Your task to perform on an android device: move an email to a new category in the gmail app Image 0: 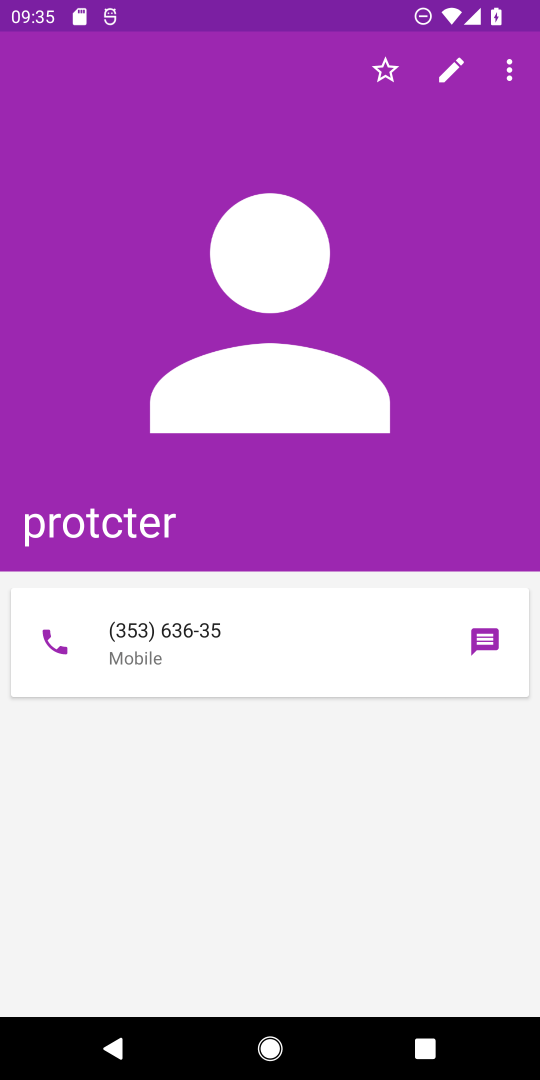
Step 0: press home button
Your task to perform on an android device: move an email to a new category in the gmail app Image 1: 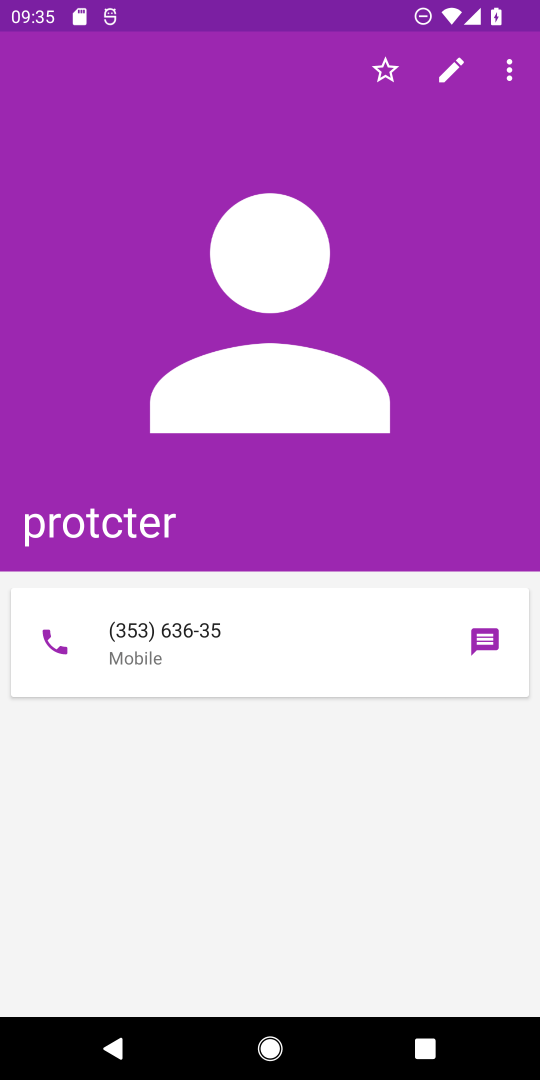
Step 1: press home button
Your task to perform on an android device: move an email to a new category in the gmail app Image 2: 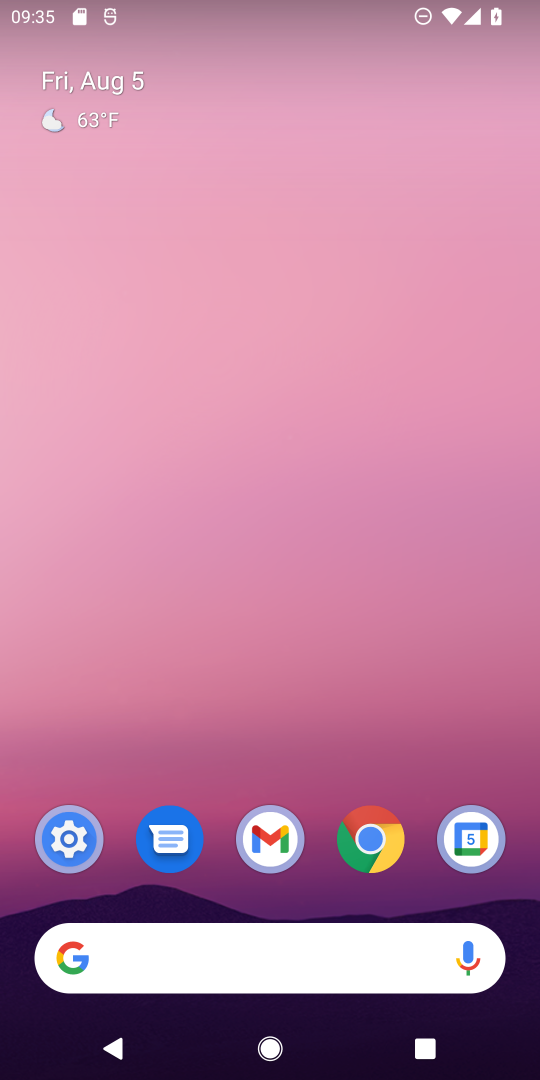
Step 2: drag from (323, 578) to (323, 0)
Your task to perform on an android device: move an email to a new category in the gmail app Image 3: 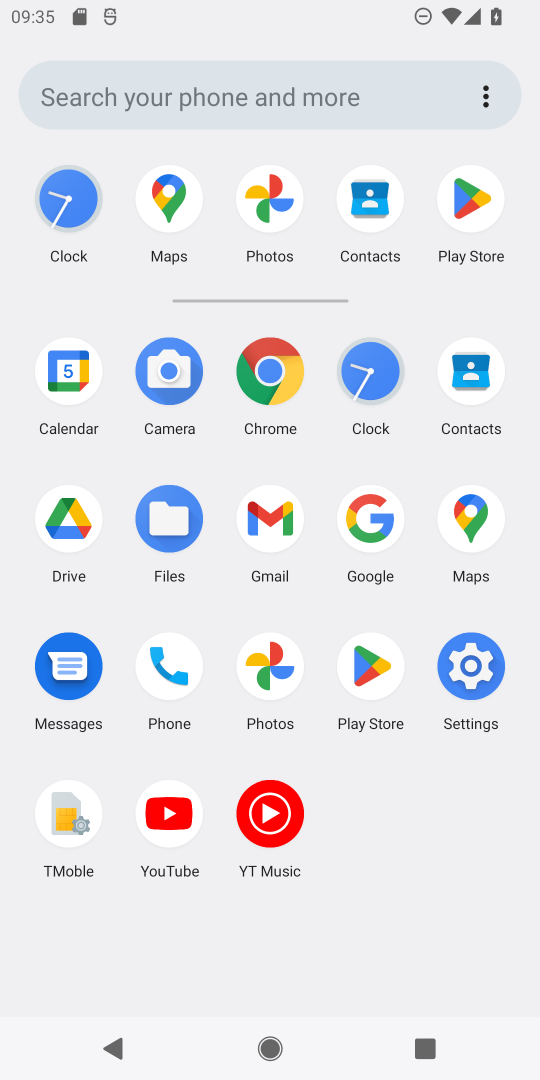
Step 3: click (267, 518)
Your task to perform on an android device: move an email to a new category in the gmail app Image 4: 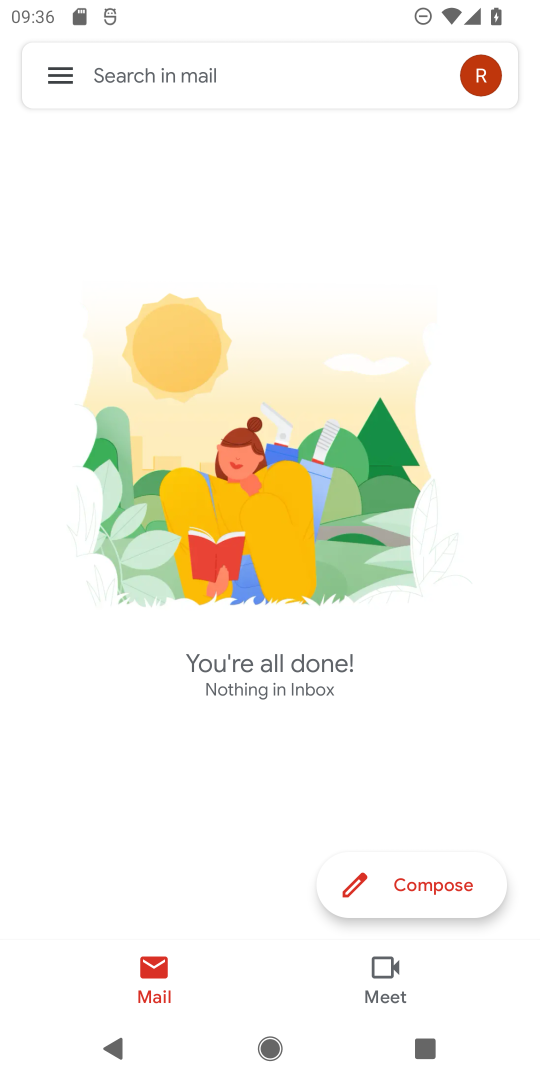
Step 4: task complete